Your task to perform on an android device: change timer sound Image 0: 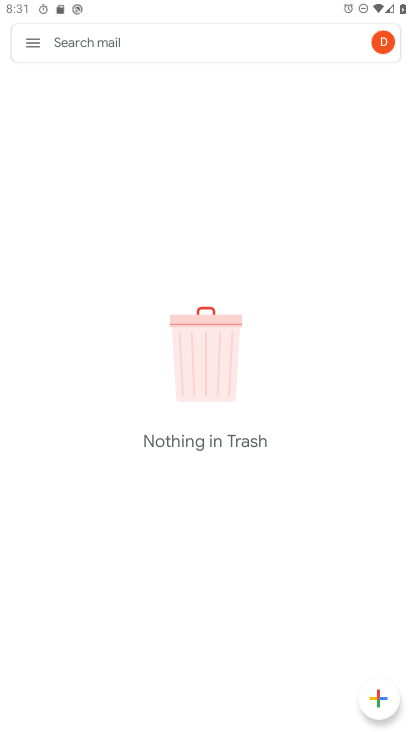
Step 0: press home button
Your task to perform on an android device: change timer sound Image 1: 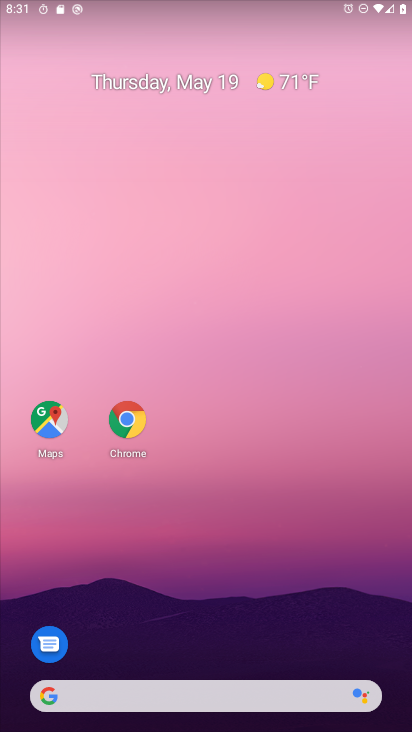
Step 1: drag from (188, 659) to (249, 294)
Your task to perform on an android device: change timer sound Image 2: 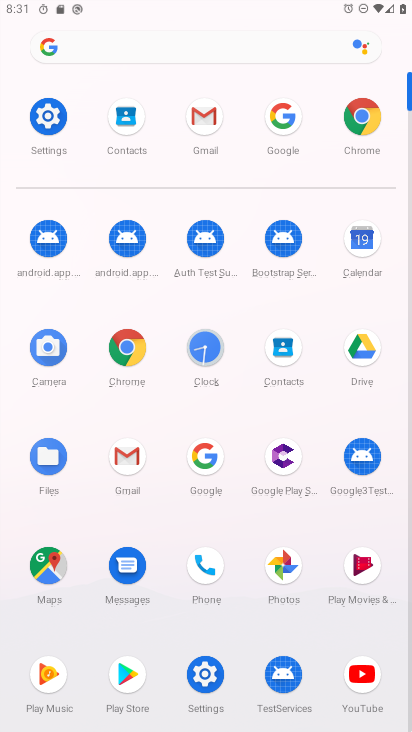
Step 2: click (202, 357)
Your task to perform on an android device: change timer sound Image 3: 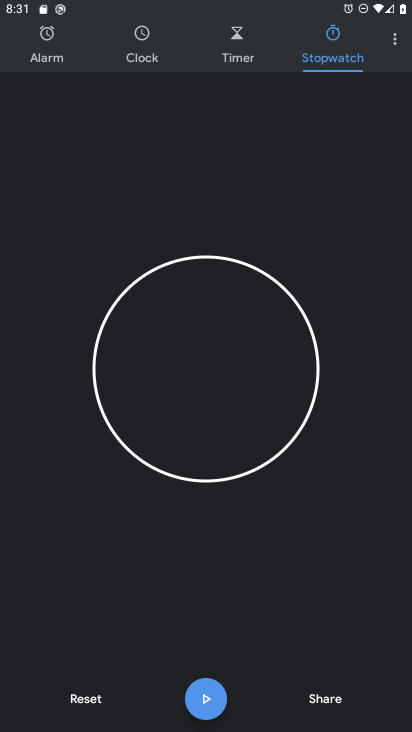
Step 3: click (392, 40)
Your task to perform on an android device: change timer sound Image 4: 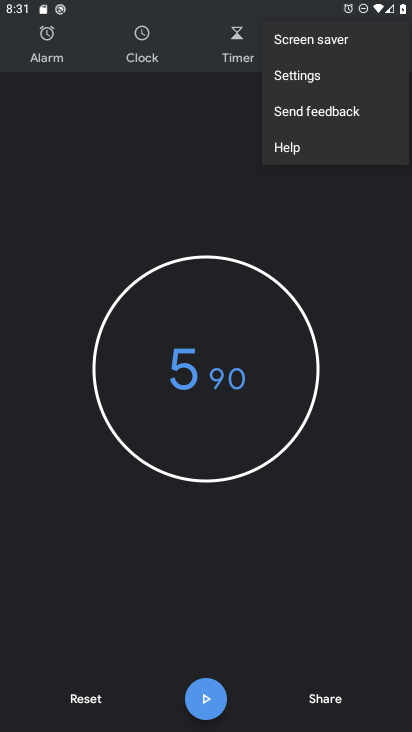
Step 4: click (299, 84)
Your task to perform on an android device: change timer sound Image 5: 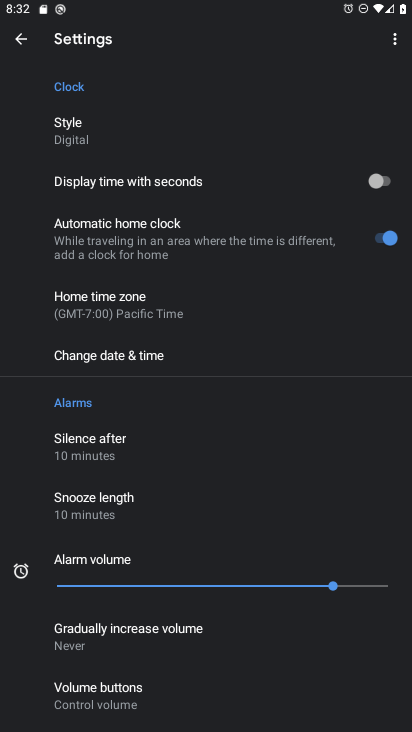
Step 5: drag from (107, 678) to (156, 307)
Your task to perform on an android device: change timer sound Image 6: 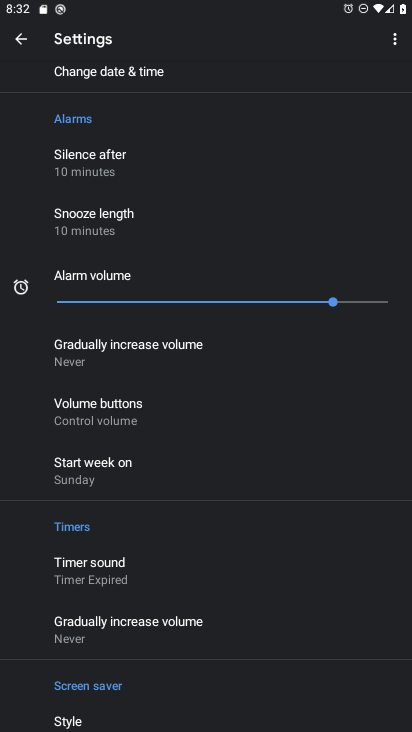
Step 6: click (84, 575)
Your task to perform on an android device: change timer sound Image 7: 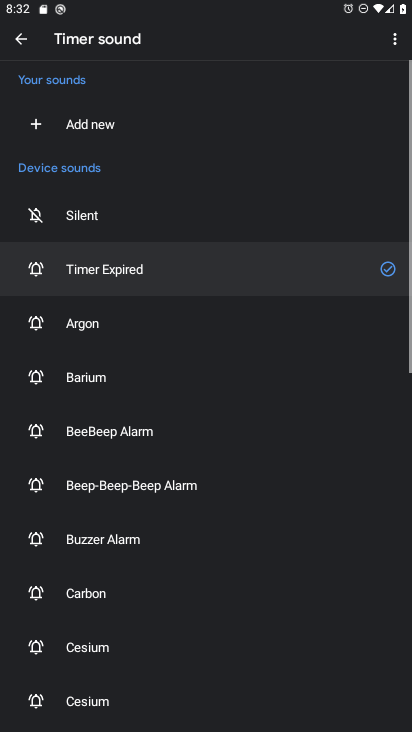
Step 7: click (97, 327)
Your task to perform on an android device: change timer sound Image 8: 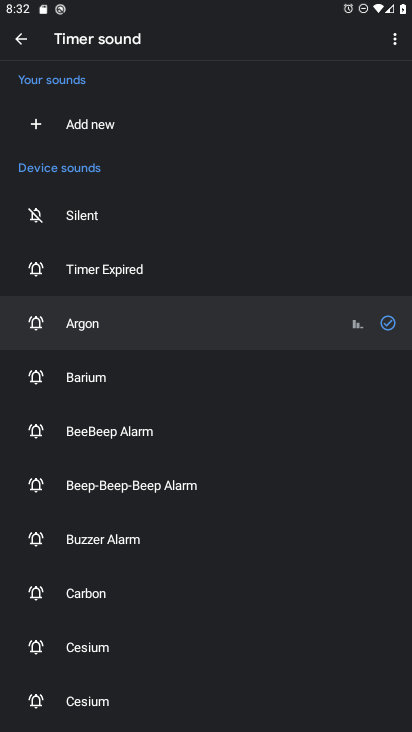
Step 8: task complete